Your task to perform on an android device: Turn off the flashlight Image 0: 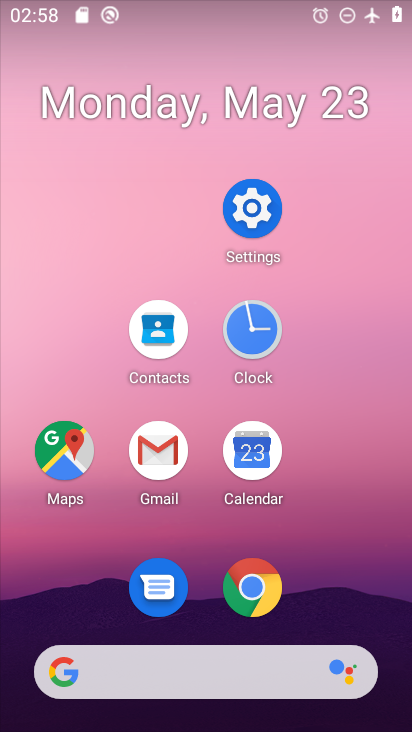
Step 0: click (231, 214)
Your task to perform on an android device: Turn off the flashlight Image 1: 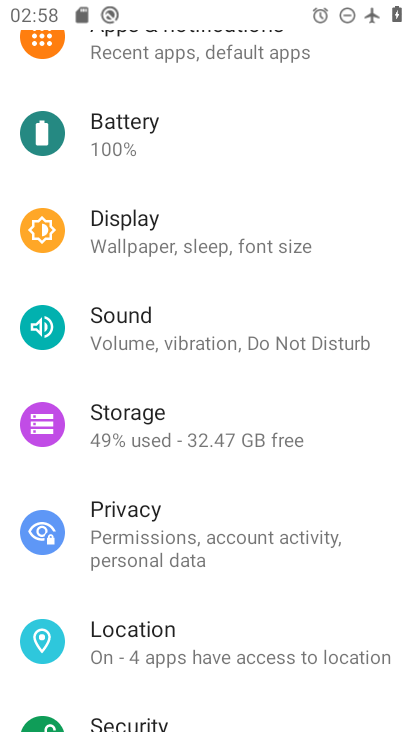
Step 1: click (211, 137)
Your task to perform on an android device: Turn off the flashlight Image 2: 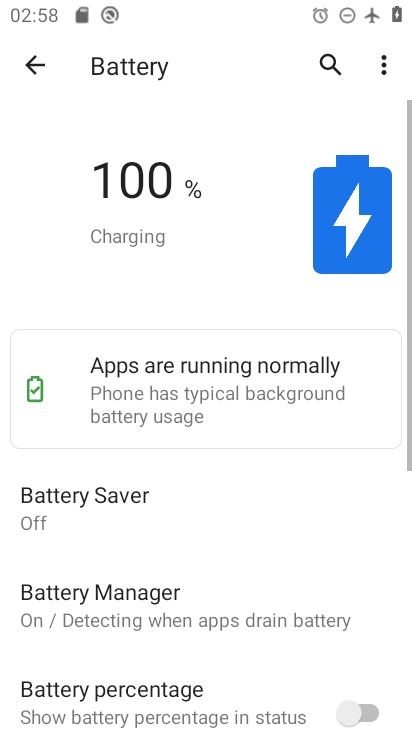
Step 2: task complete